Your task to perform on an android device: Play the last video I watched on Youtube Image 0: 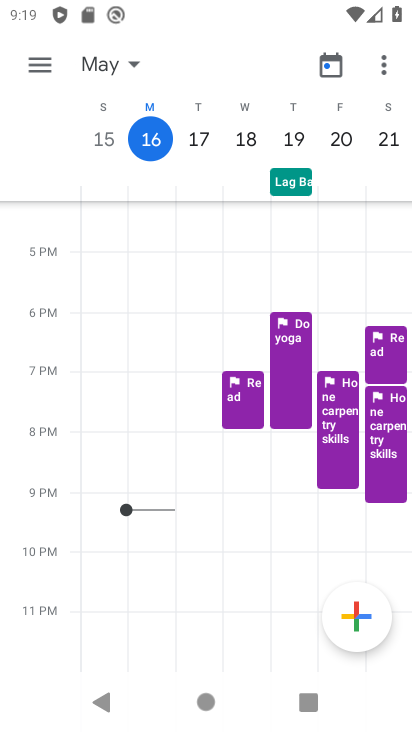
Step 0: press home button
Your task to perform on an android device: Play the last video I watched on Youtube Image 1: 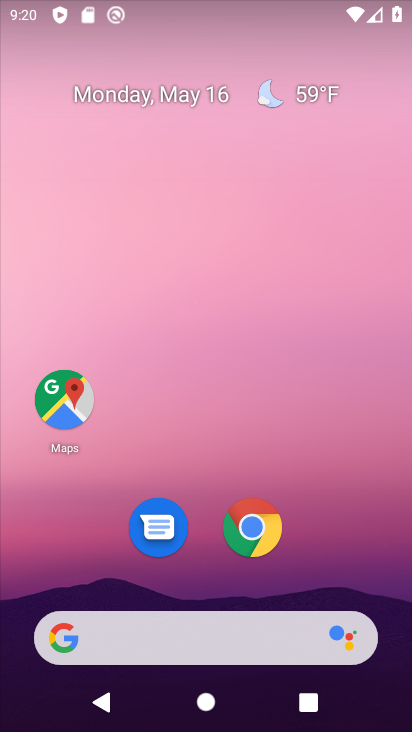
Step 1: click (378, 281)
Your task to perform on an android device: Play the last video I watched on Youtube Image 2: 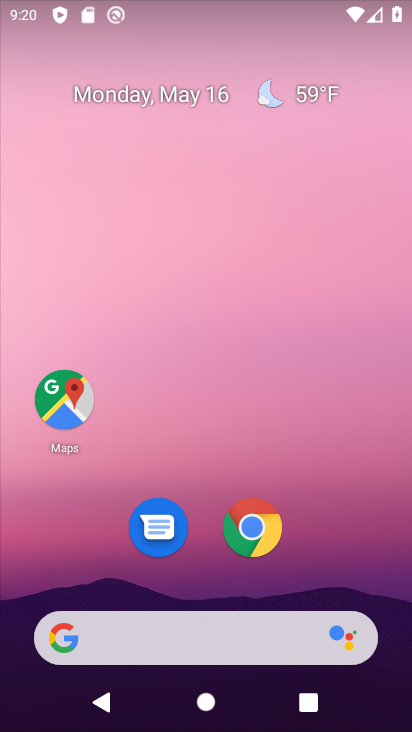
Step 2: drag from (381, 450) to (390, 278)
Your task to perform on an android device: Play the last video I watched on Youtube Image 3: 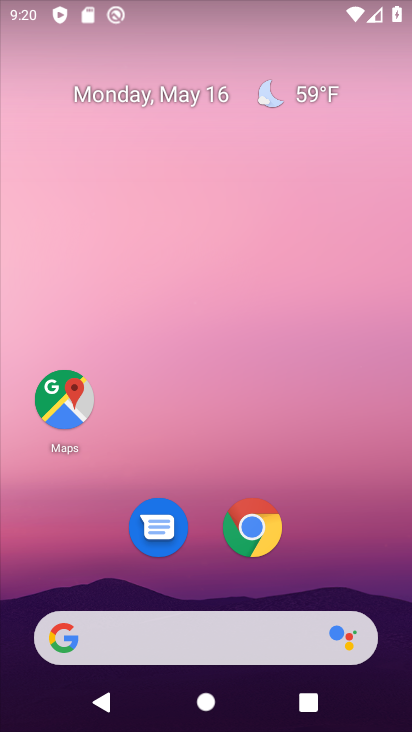
Step 3: click (410, 252)
Your task to perform on an android device: Play the last video I watched on Youtube Image 4: 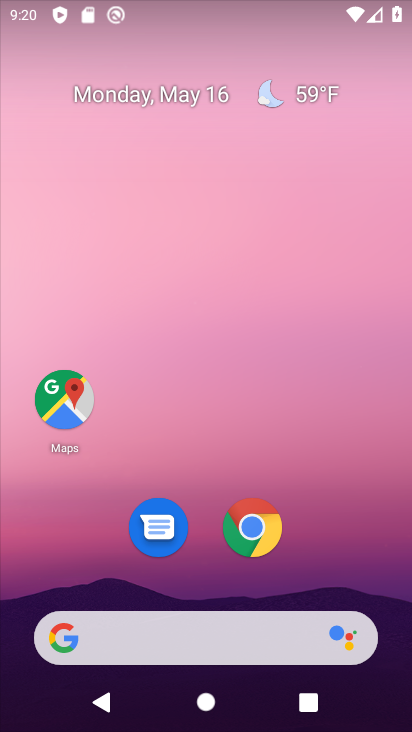
Step 4: drag from (388, 669) to (393, 311)
Your task to perform on an android device: Play the last video I watched on Youtube Image 5: 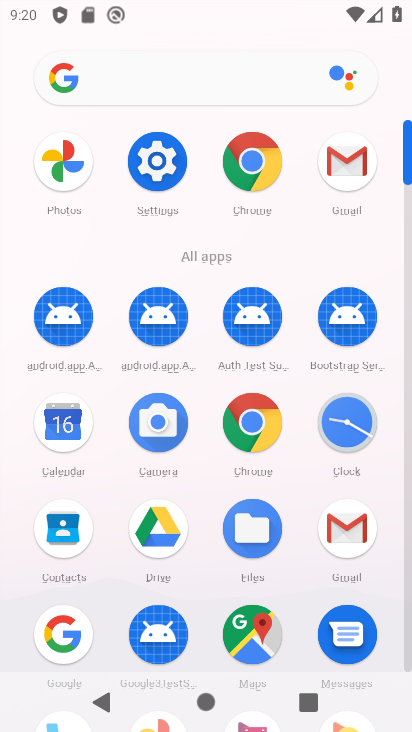
Step 5: drag from (407, 128) to (405, 67)
Your task to perform on an android device: Play the last video I watched on Youtube Image 6: 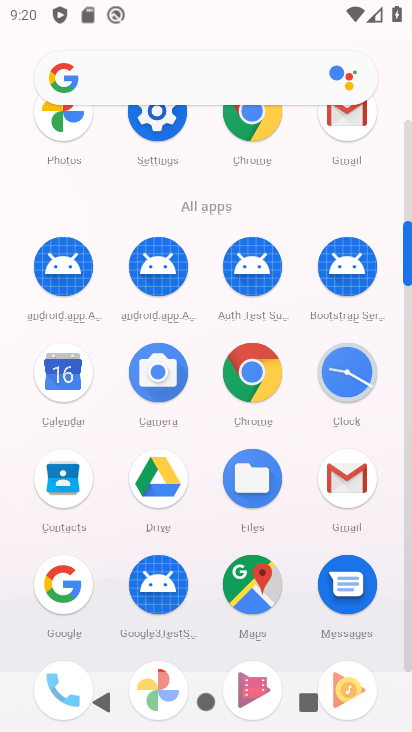
Step 6: drag from (407, 223) to (409, 171)
Your task to perform on an android device: Play the last video I watched on Youtube Image 7: 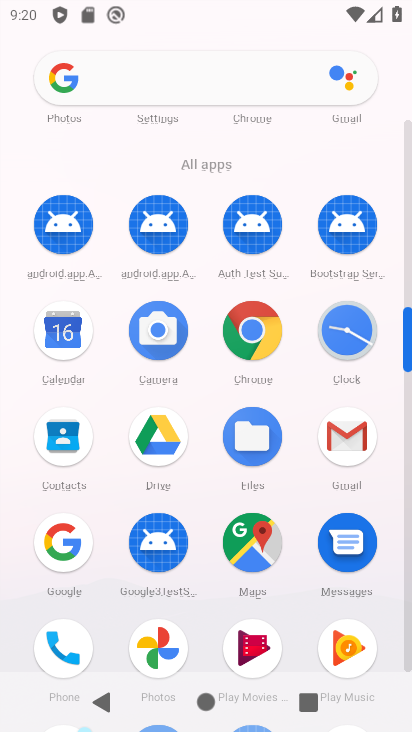
Step 7: drag from (405, 320) to (409, 240)
Your task to perform on an android device: Play the last video I watched on Youtube Image 8: 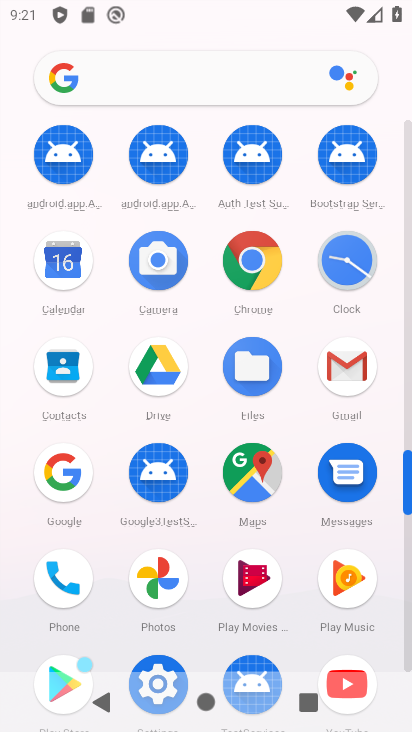
Step 8: drag from (411, 465) to (391, 351)
Your task to perform on an android device: Play the last video I watched on Youtube Image 9: 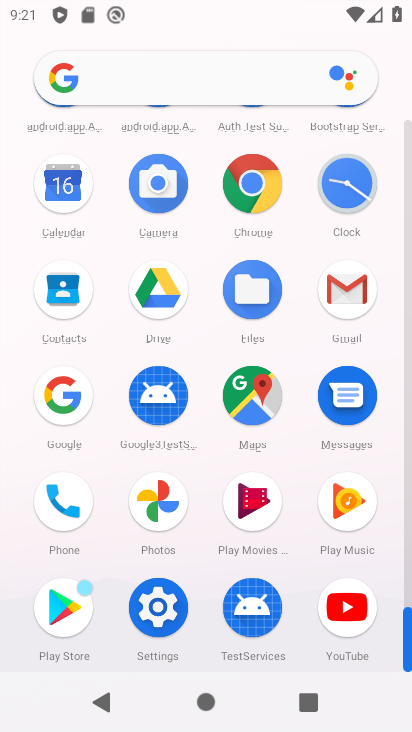
Step 9: click (342, 597)
Your task to perform on an android device: Play the last video I watched on Youtube Image 10: 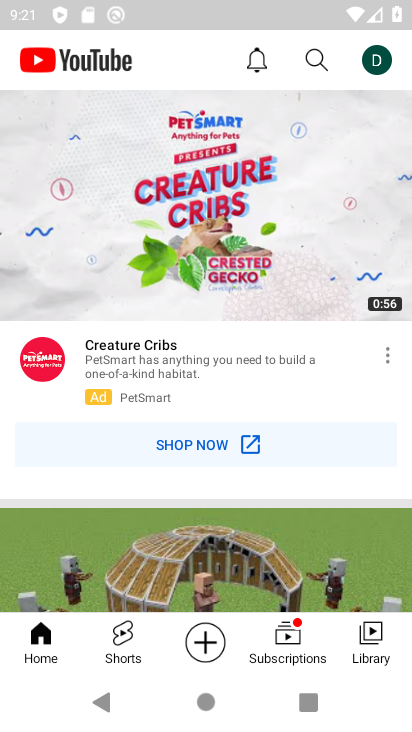
Step 10: drag from (302, 574) to (316, 319)
Your task to perform on an android device: Play the last video I watched on Youtube Image 11: 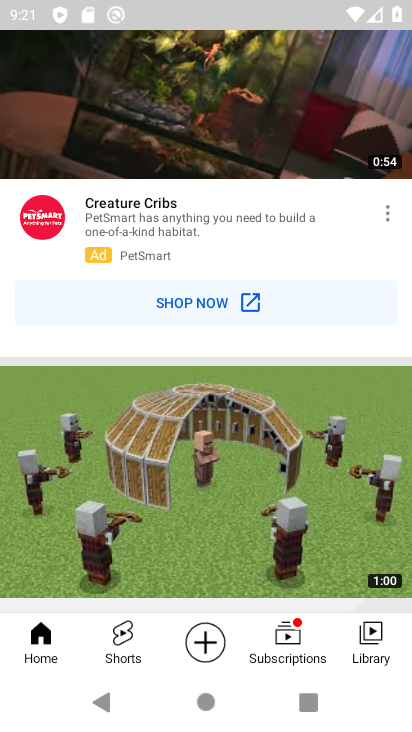
Step 11: drag from (298, 545) to (295, 349)
Your task to perform on an android device: Play the last video I watched on Youtube Image 12: 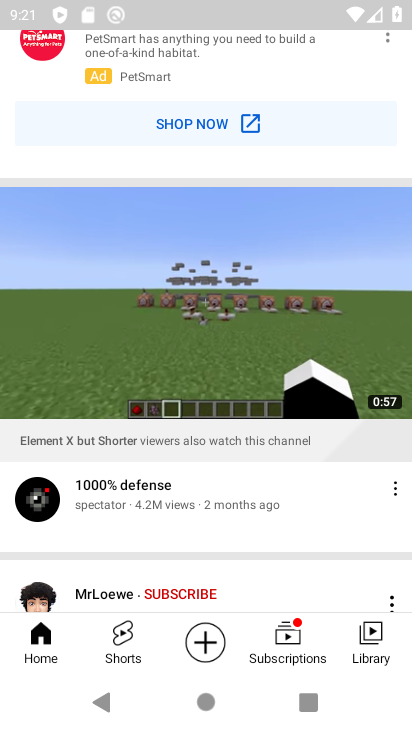
Step 12: click (369, 642)
Your task to perform on an android device: Play the last video I watched on Youtube Image 13: 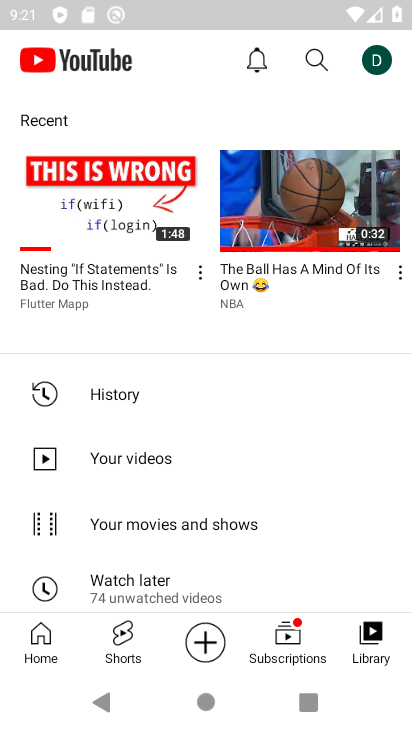
Step 13: click (99, 226)
Your task to perform on an android device: Play the last video I watched on Youtube Image 14: 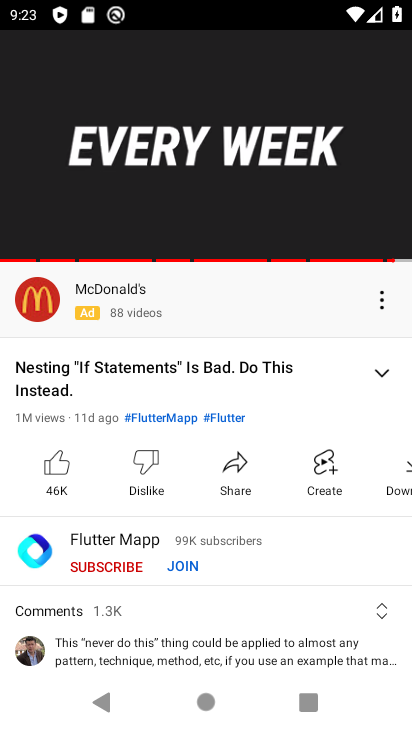
Step 14: task complete